Your task to perform on an android device: Go to wifi settings Image 0: 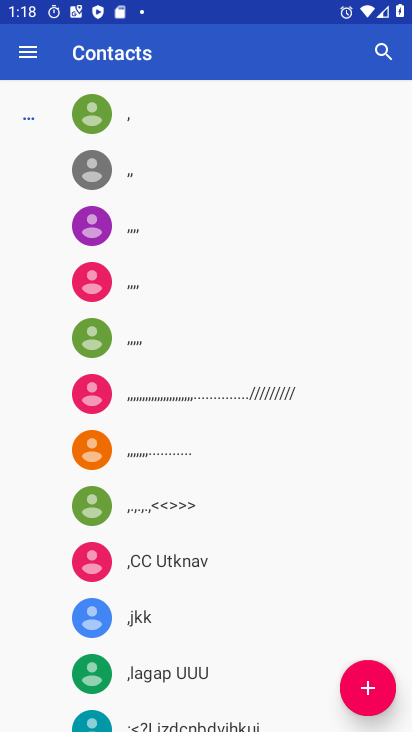
Step 0: press home button
Your task to perform on an android device: Go to wifi settings Image 1: 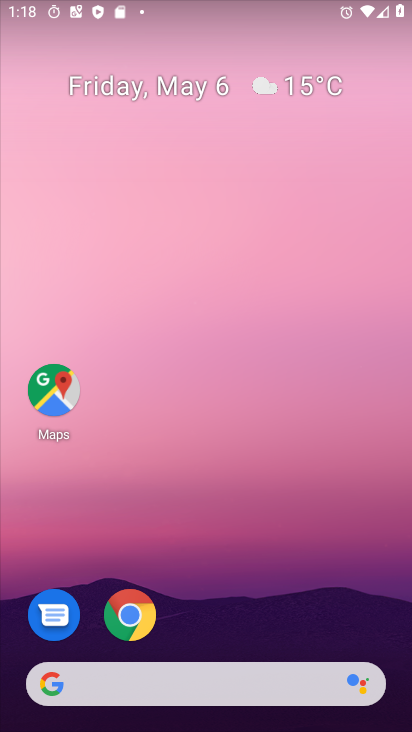
Step 1: drag from (223, 509) to (276, 87)
Your task to perform on an android device: Go to wifi settings Image 2: 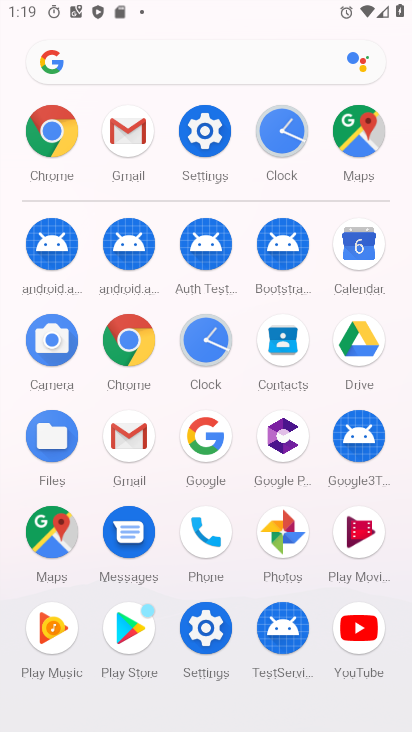
Step 2: click (208, 140)
Your task to perform on an android device: Go to wifi settings Image 3: 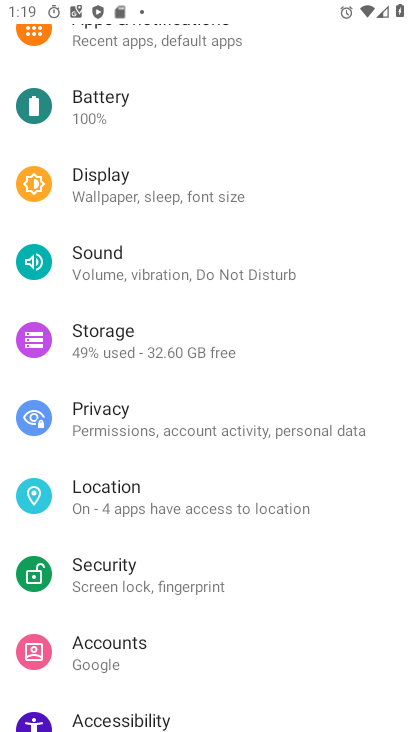
Step 3: drag from (198, 253) to (191, 541)
Your task to perform on an android device: Go to wifi settings Image 4: 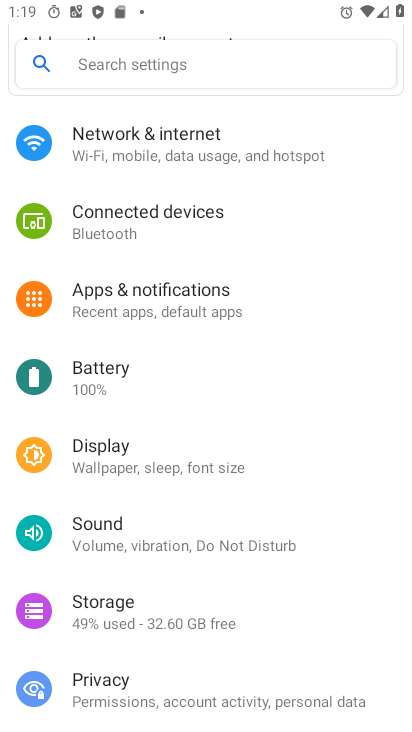
Step 4: click (261, 140)
Your task to perform on an android device: Go to wifi settings Image 5: 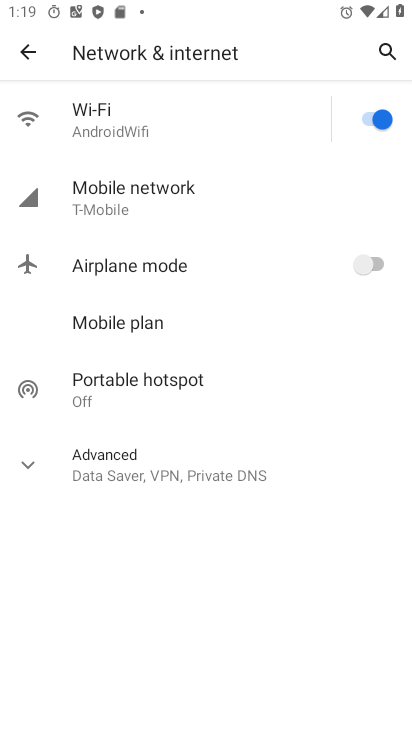
Step 5: click (257, 114)
Your task to perform on an android device: Go to wifi settings Image 6: 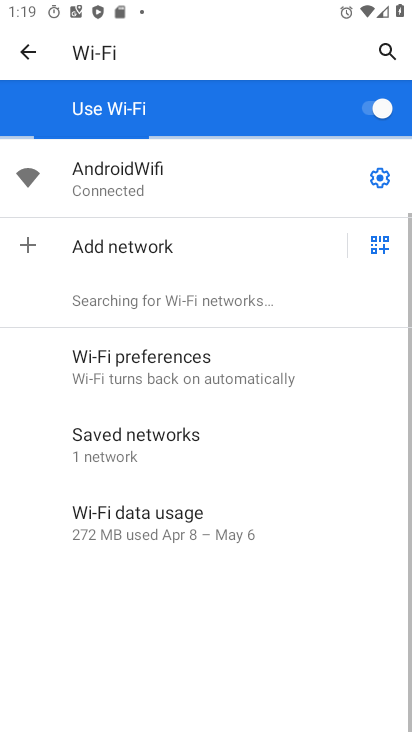
Step 6: task complete